Your task to perform on an android device: Go to Google Image 0: 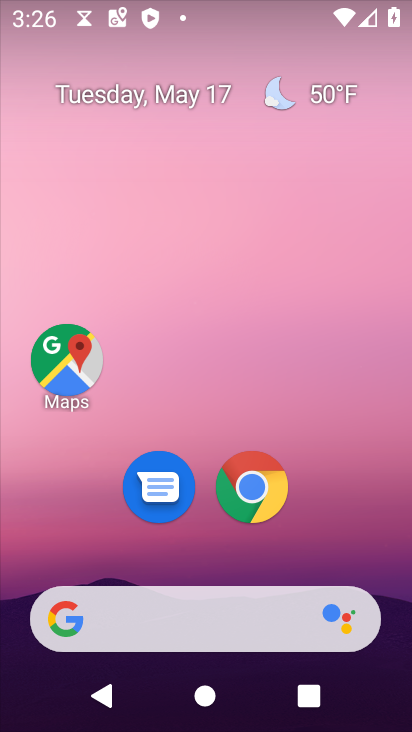
Step 0: click (254, 487)
Your task to perform on an android device: Go to Google Image 1: 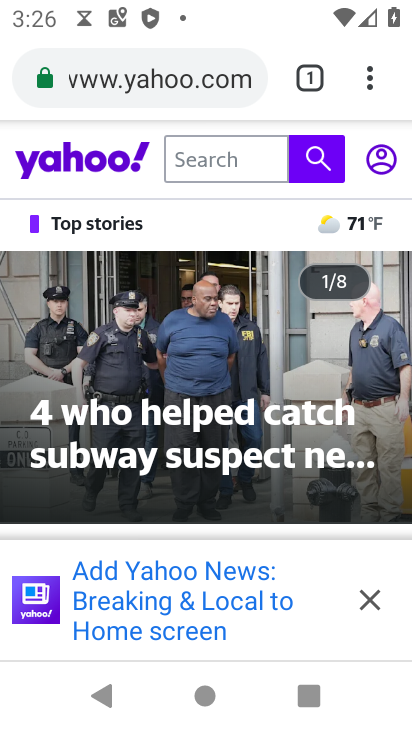
Step 1: task complete